Your task to perform on an android device: Go to accessibility settings Image 0: 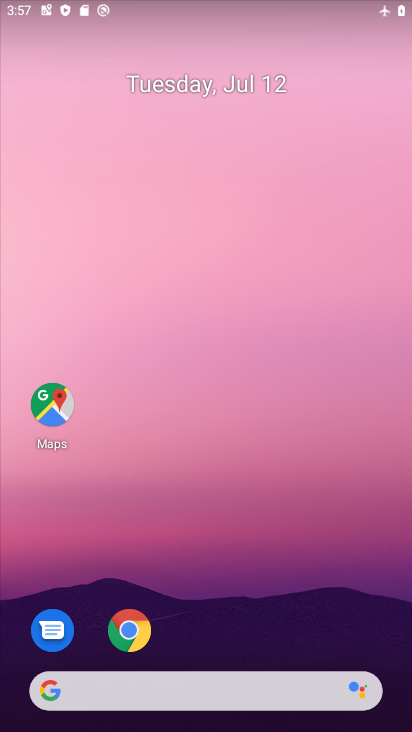
Step 0: drag from (347, 603) to (385, 4)
Your task to perform on an android device: Go to accessibility settings Image 1: 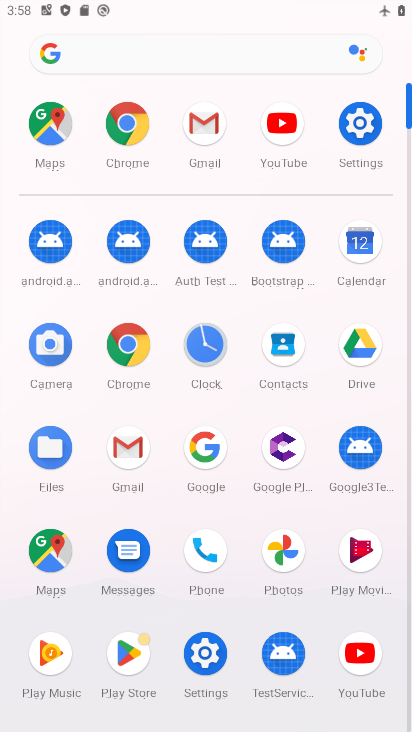
Step 1: click (361, 143)
Your task to perform on an android device: Go to accessibility settings Image 2: 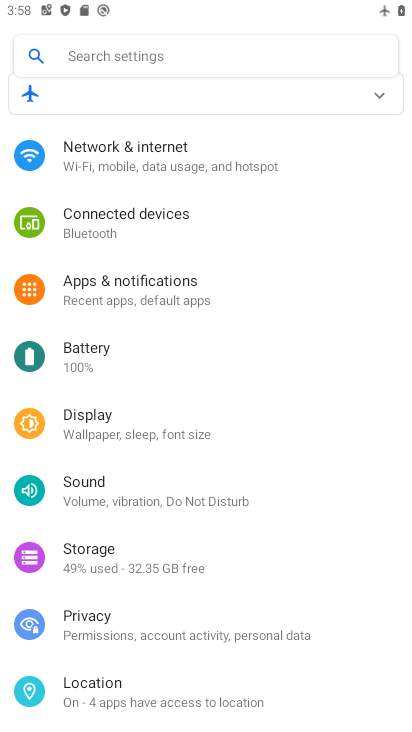
Step 2: drag from (245, 686) to (295, 125)
Your task to perform on an android device: Go to accessibility settings Image 3: 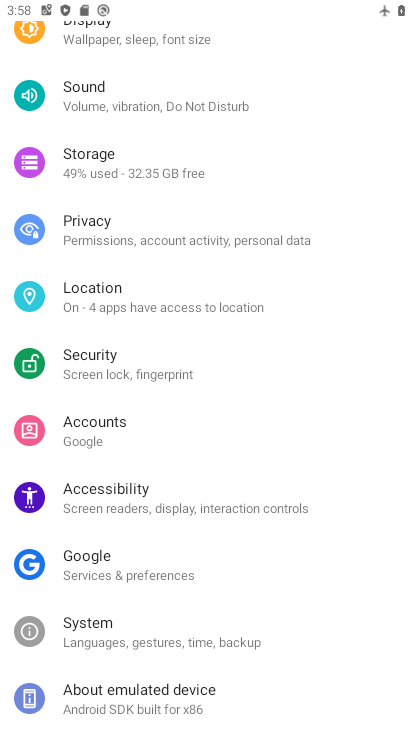
Step 3: click (181, 500)
Your task to perform on an android device: Go to accessibility settings Image 4: 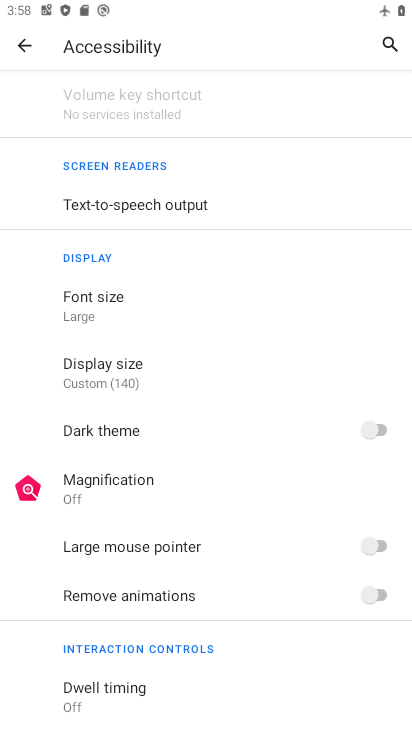
Step 4: task complete